Your task to perform on an android device: Add logitech g pro to the cart on ebay Image 0: 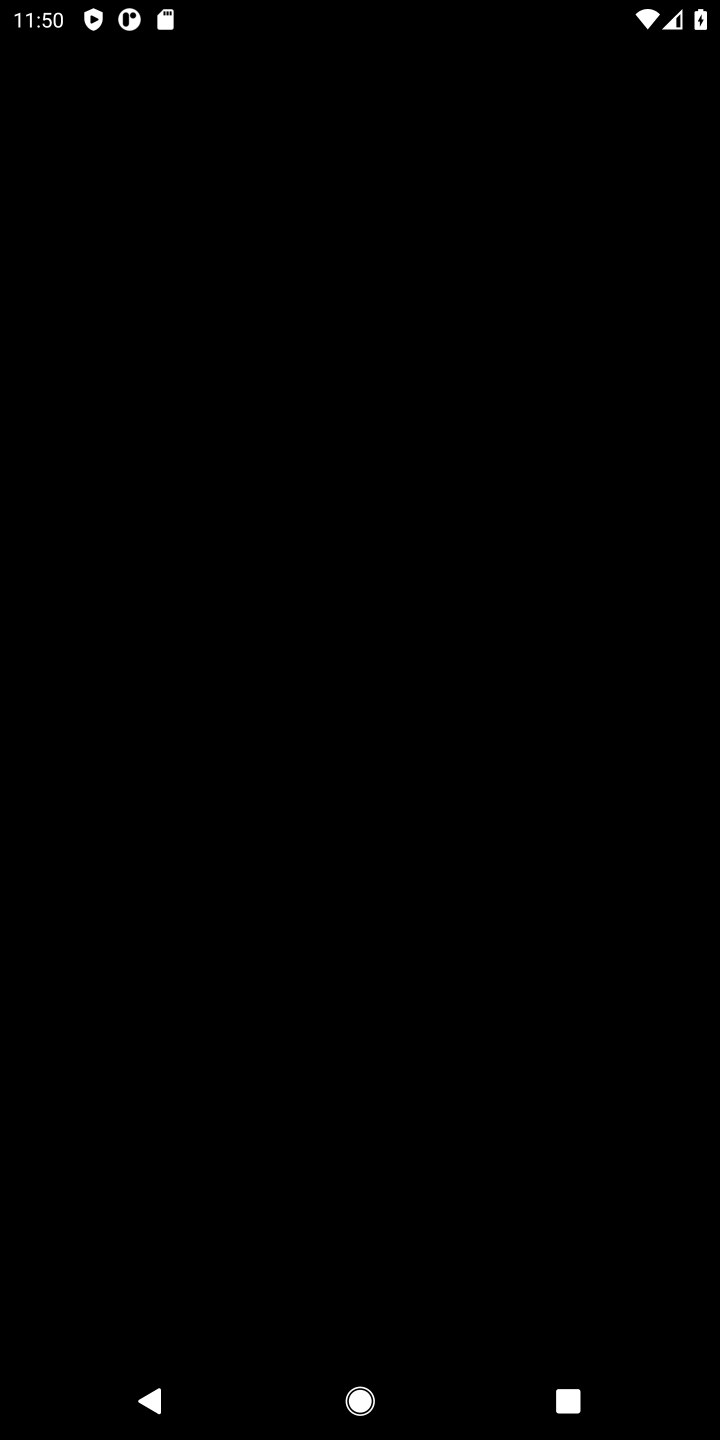
Step 0: click (481, 1151)
Your task to perform on an android device: Add logitech g pro to the cart on ebay Image 1: 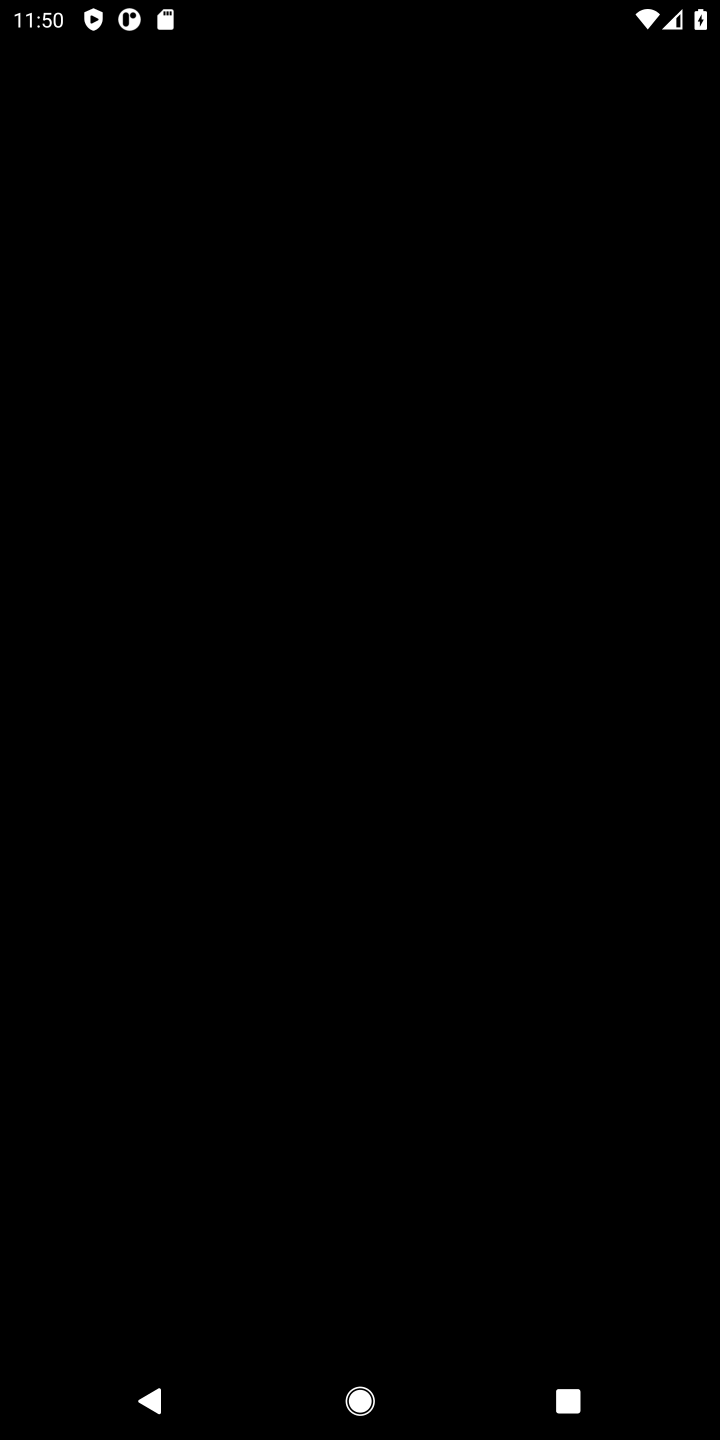
Step 1: press home button
Your task to perform on an android device: Add logitech g pro to the cart on ebay Image 2: 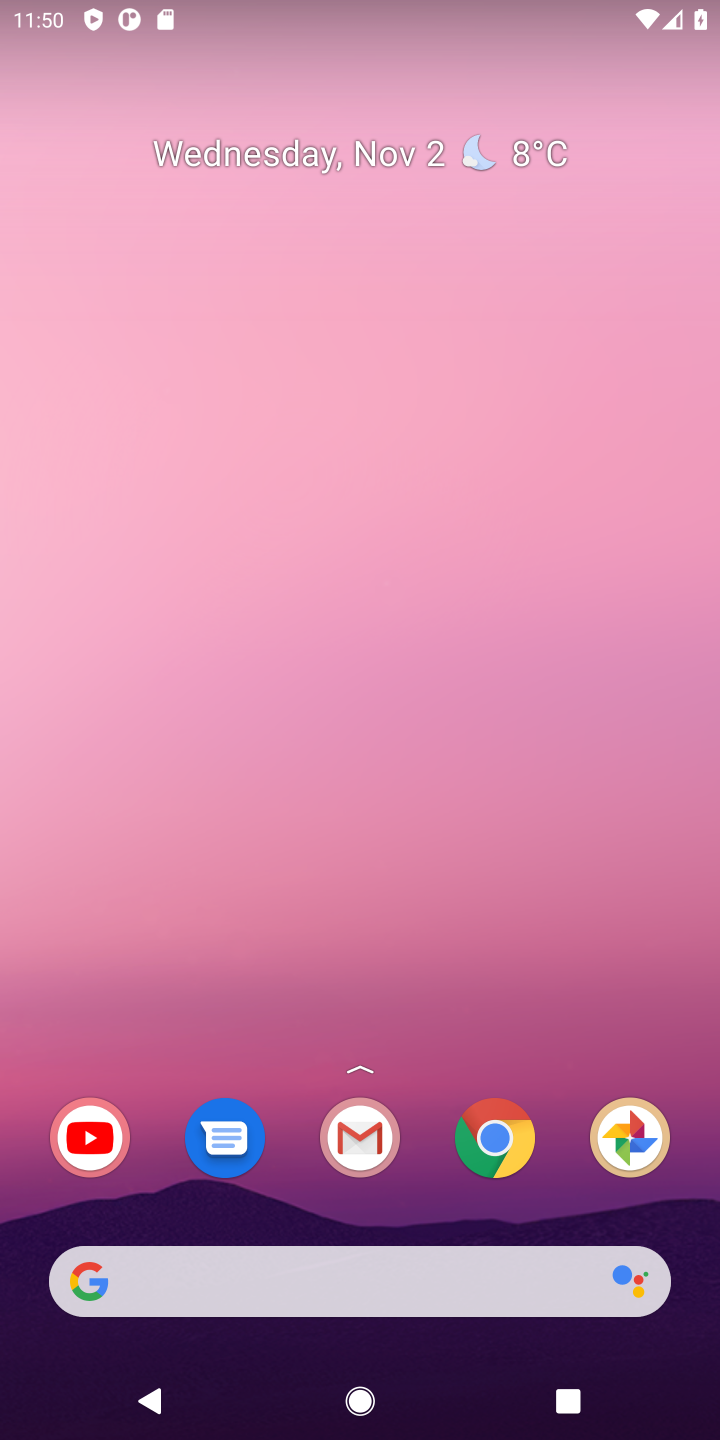
Step 2: click (516, 1148)
Your task to perform on an android device: Add logitech g pro to the cart on ebay Image 3: 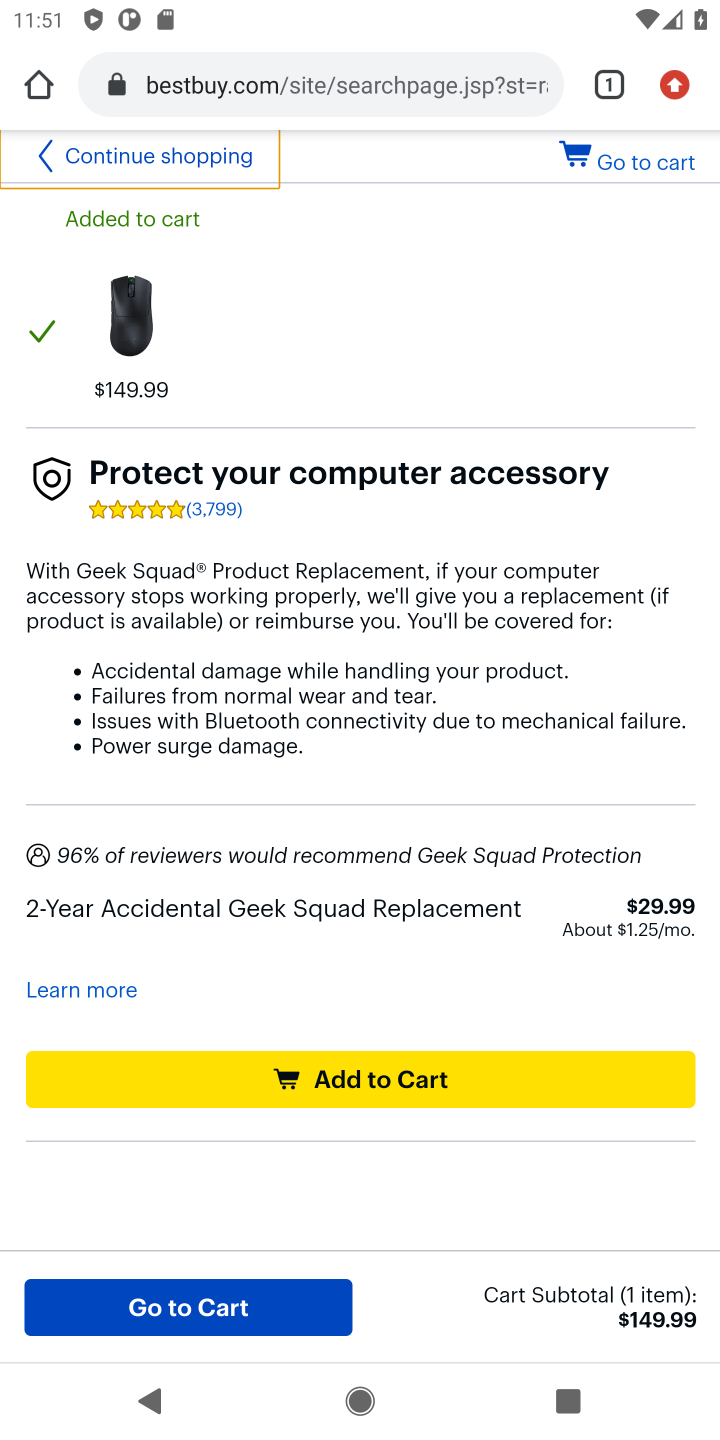
Step 3: click (319, 69)
Your task to perform on an android device: Add logitech g pro to the cart on ebay Image 4: 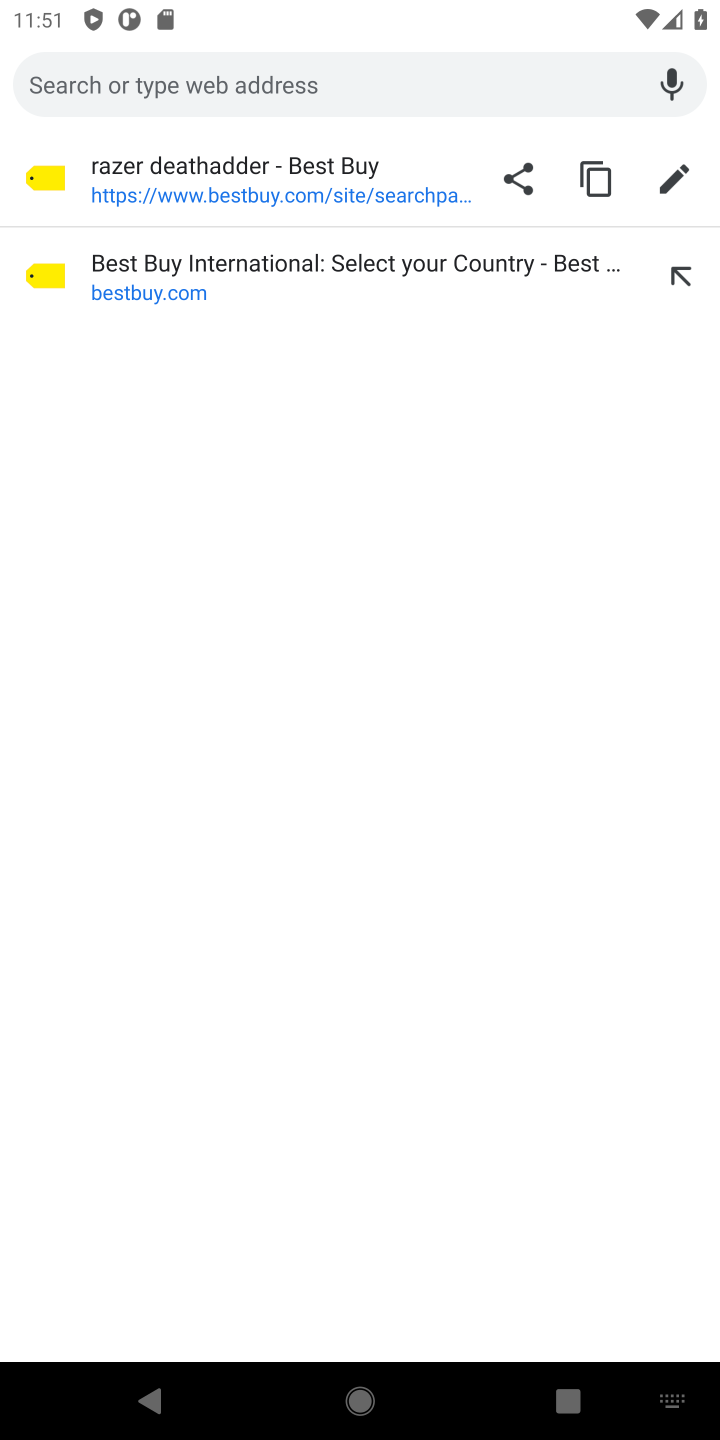
Step 4: type "ebay"
Your task to perform on an android device: Add logitech g pro to the cart on ebay Image 5: 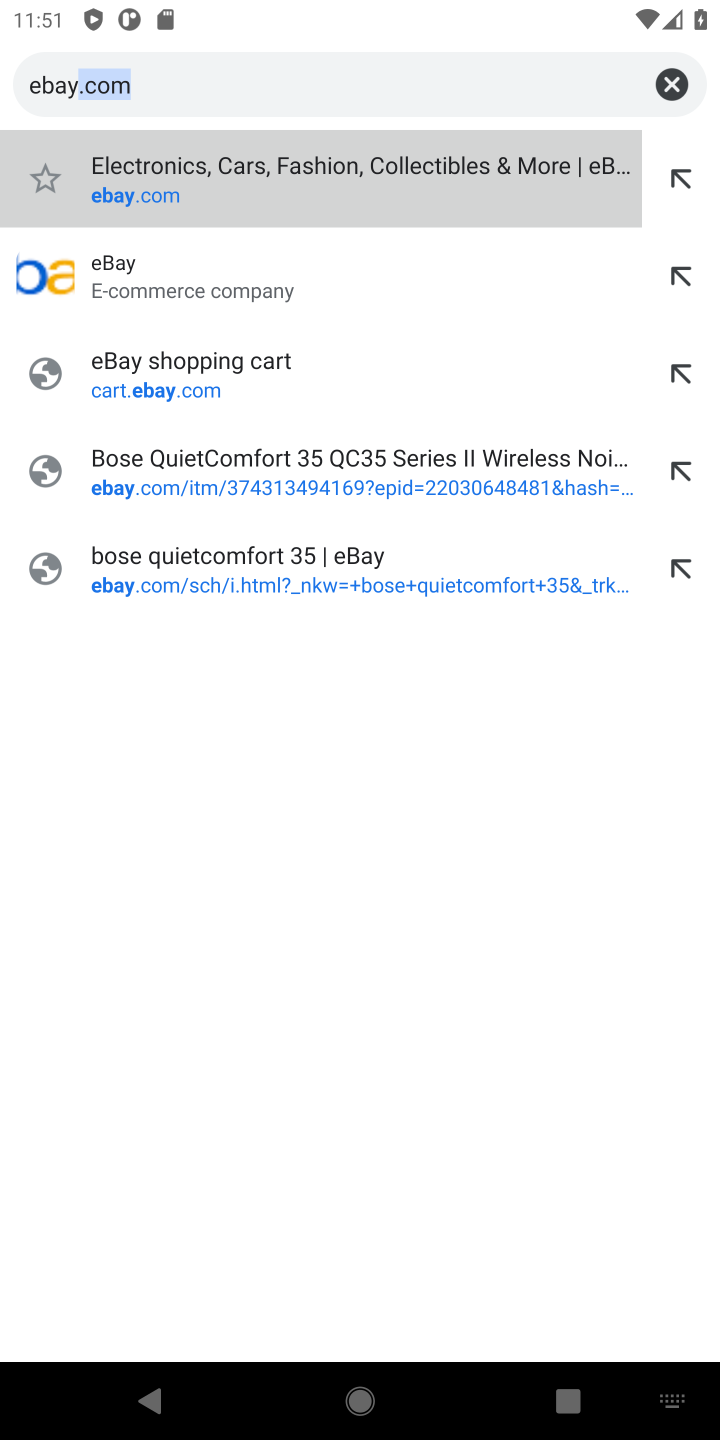
Step 5: click (174, 279)
Your task to perform on an android device: Add logitech g pro to the cart on ebay Image 6: 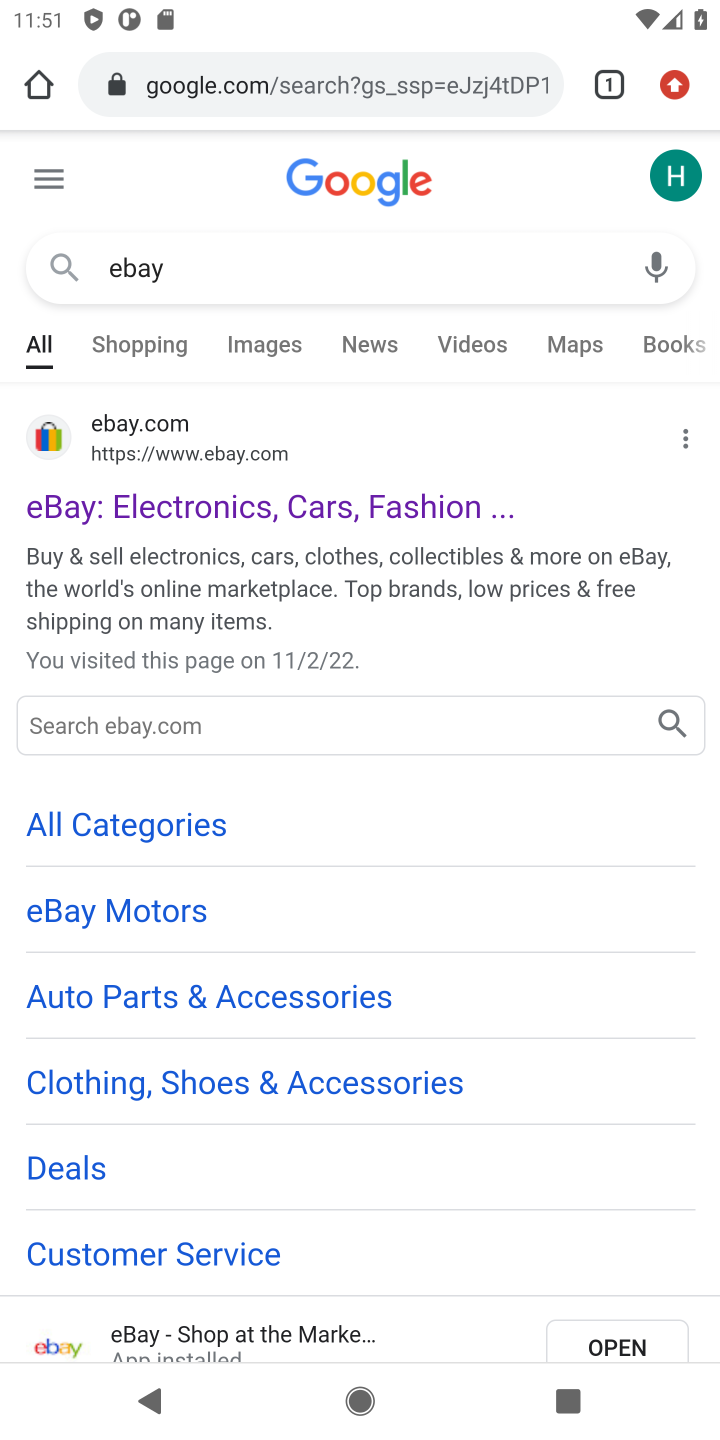
Step 6: click (45, 490)
Your task to perform on an android device: Add logitech g pro to the cart on ebay Image 7: 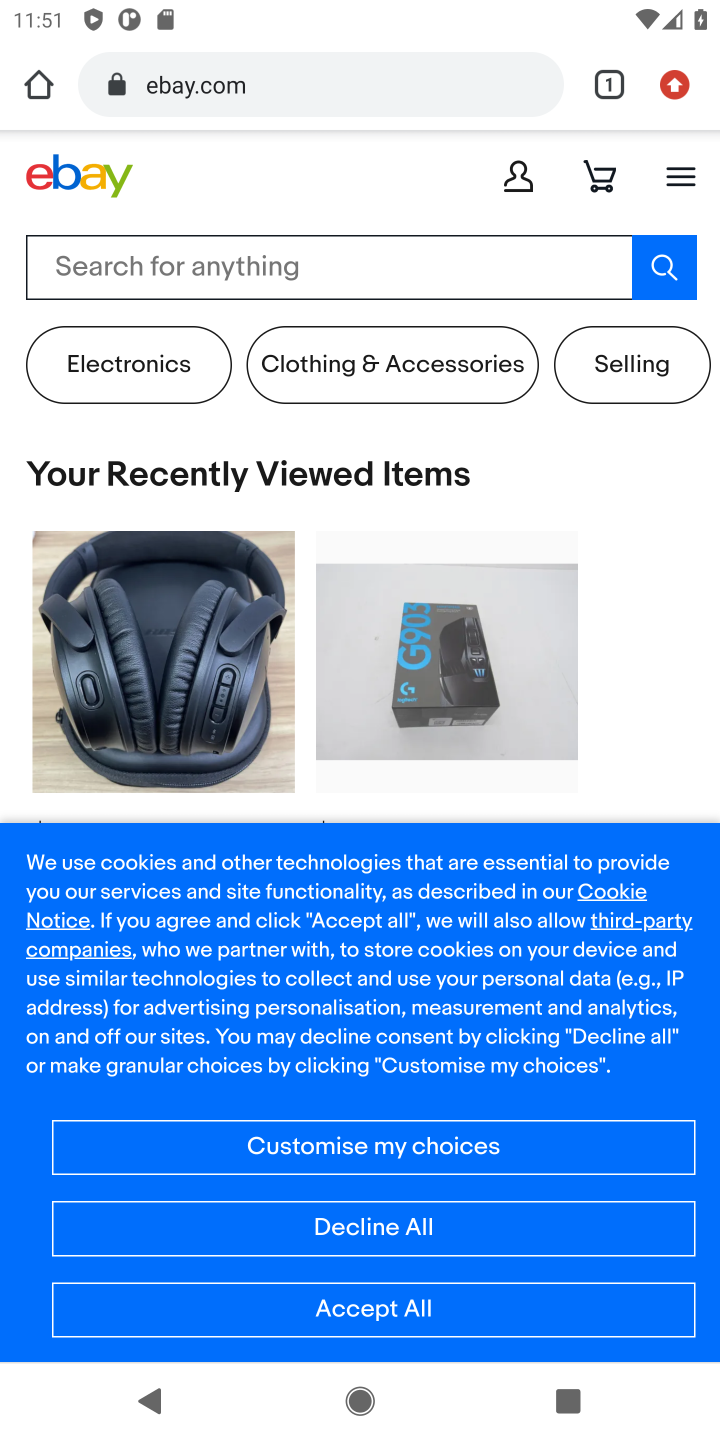
Step 7: click (75, 278)
Your task to perform on an android device: Add logitech g pro to the cart on ebay Image 8: 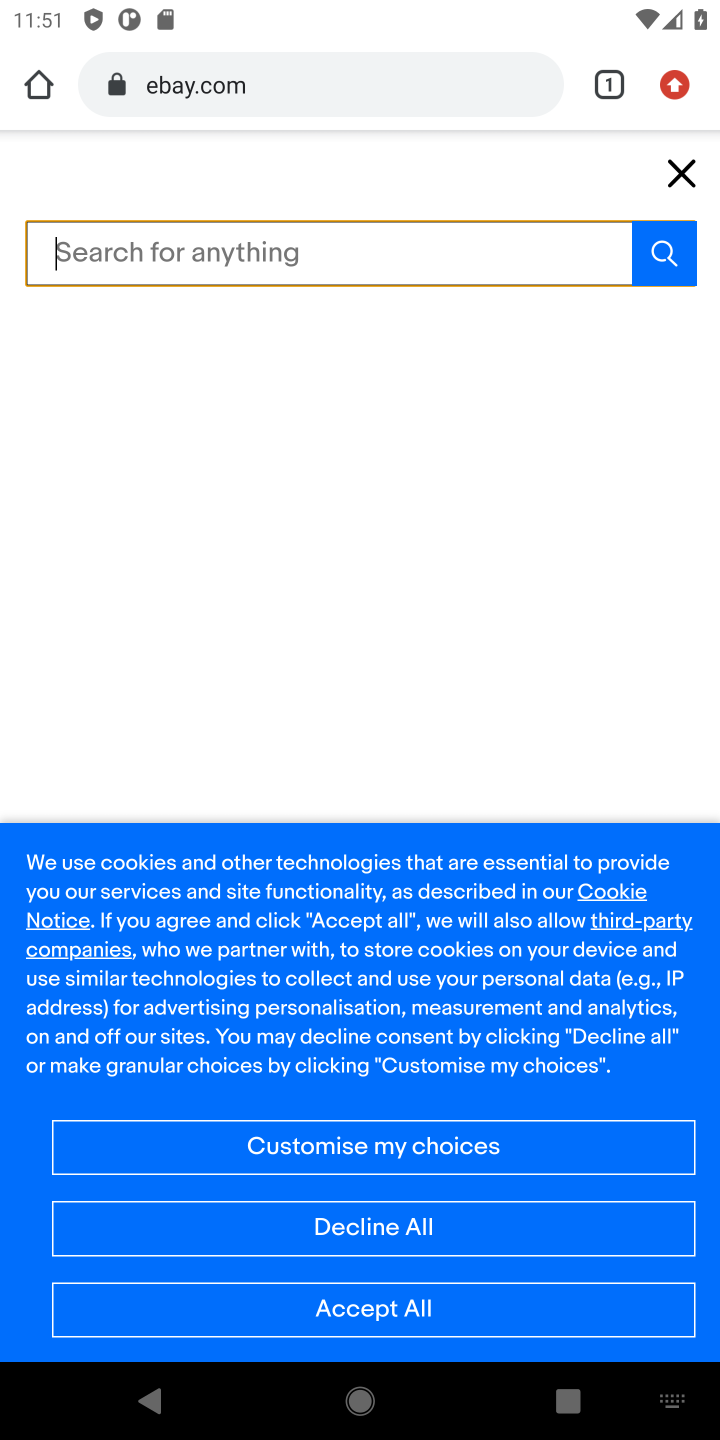
Step 8: type "logitech g pro"
Your task to perform on an android device: Add logitech g pro to the cart on ebay Image 9: 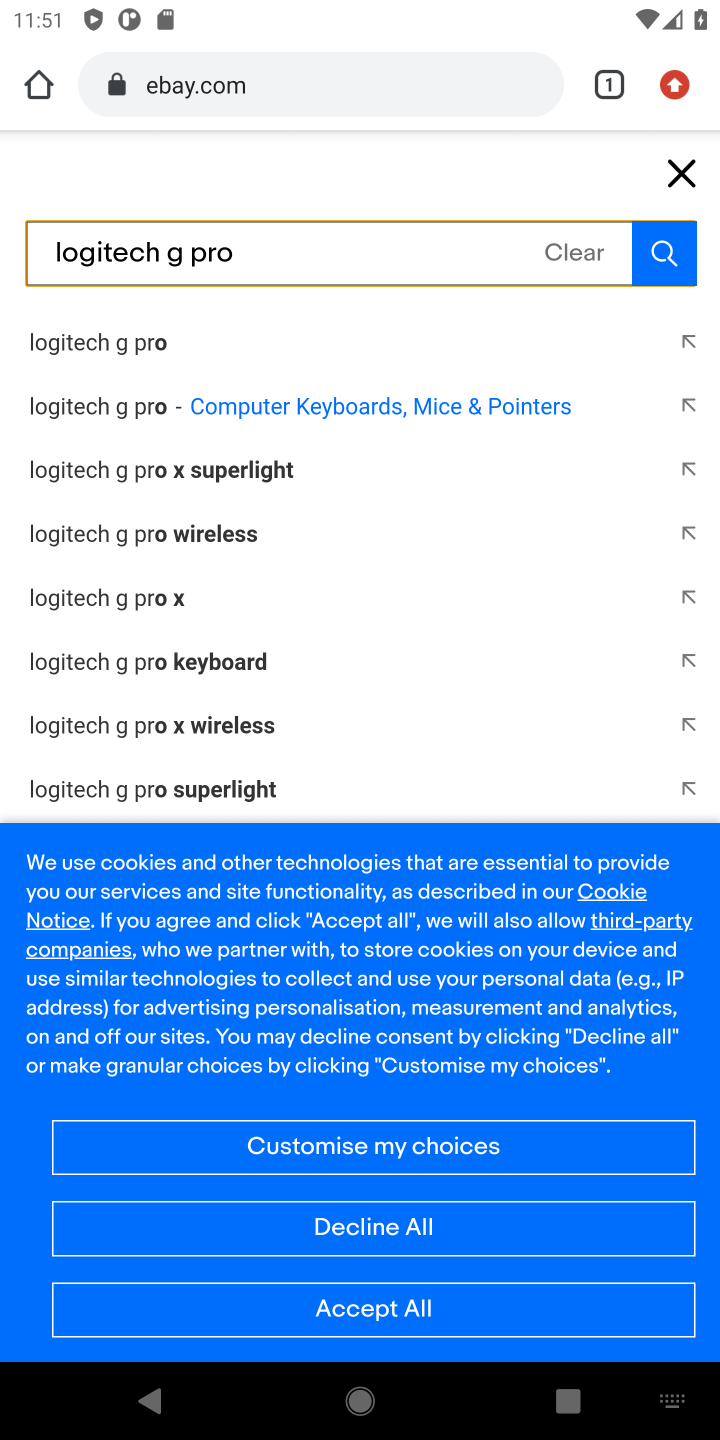
Step 9: click (651, 251)
Your task to perform on an android device: Add logitech g pro to the cart on ebay Image 10: 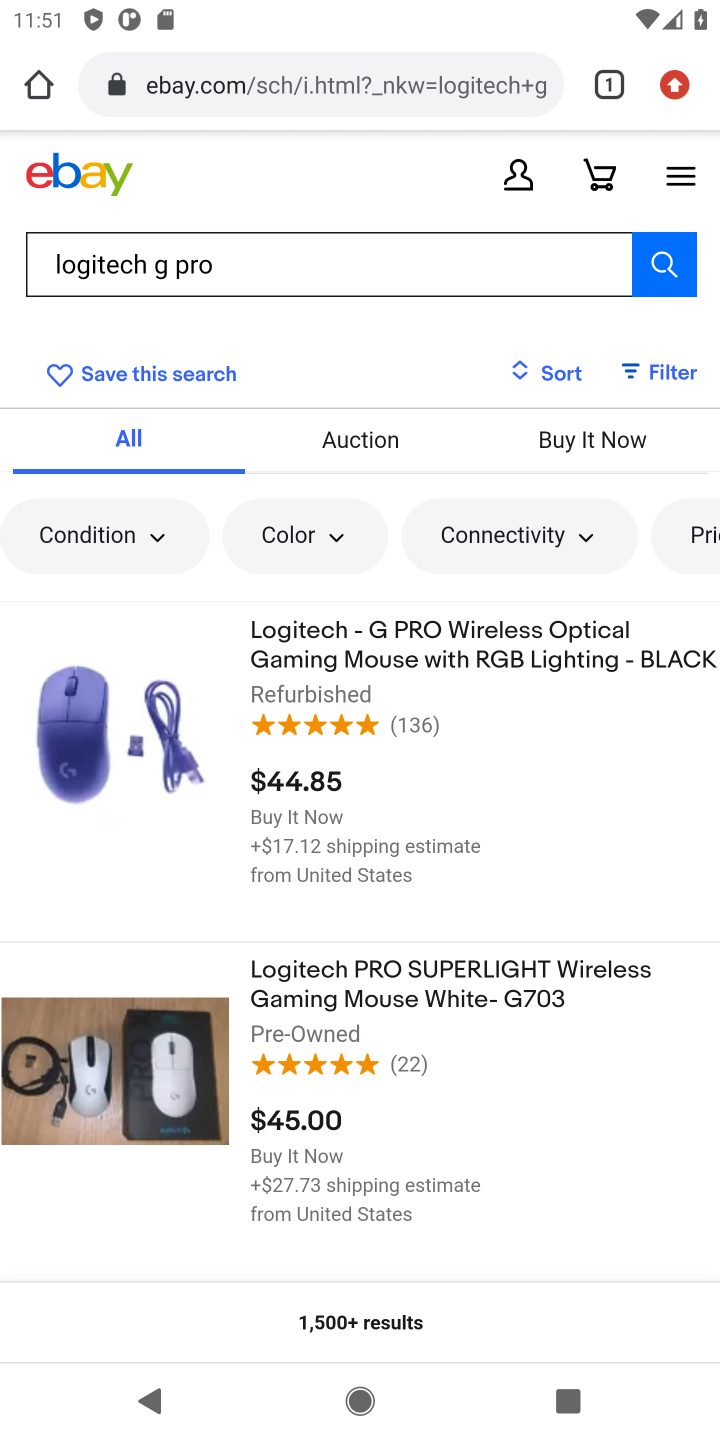
Step 10: click (324, 655)
Your task to perform on an android device: Add logitech g pro to the cart on ebay Image 11: 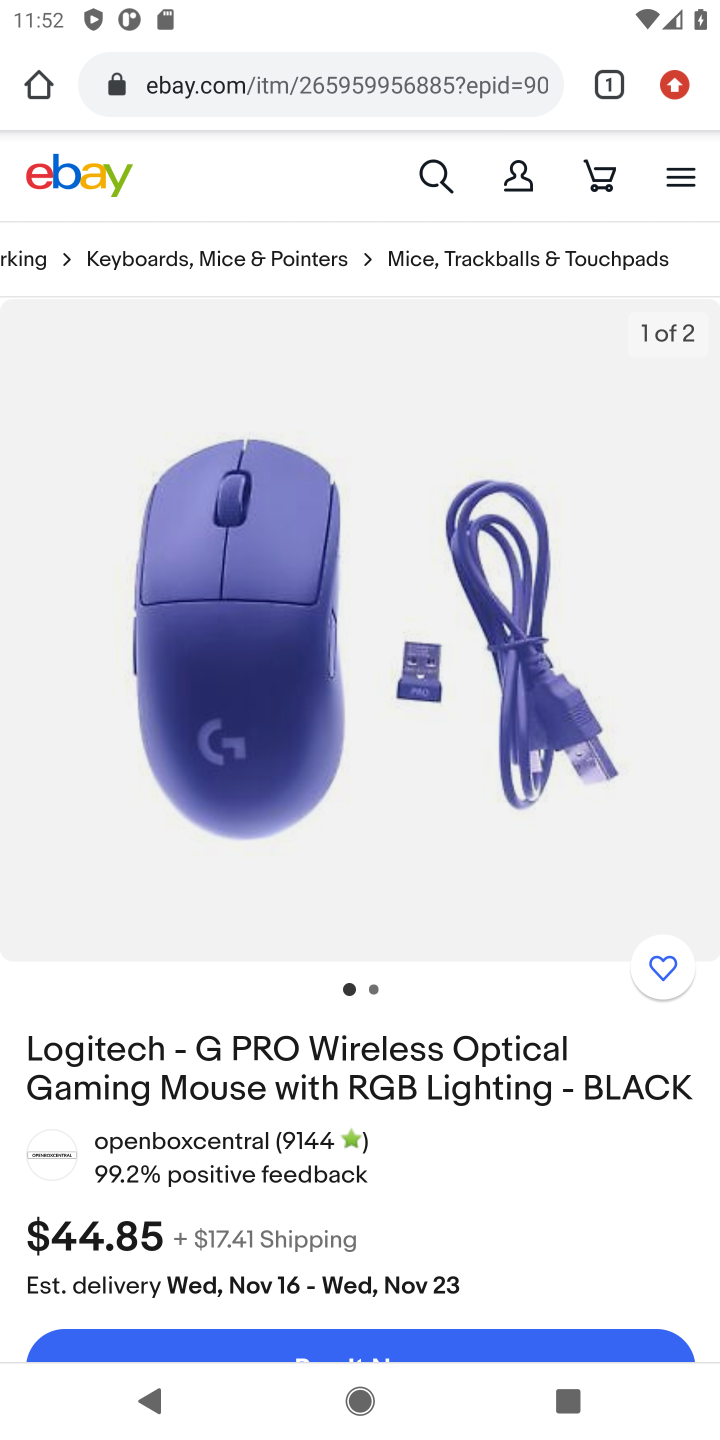
Step 11: drag from (505, 1225) to (539, 543)
Your task to perform on an android device: Add logitech g pro to the cart on ebay Image 12: 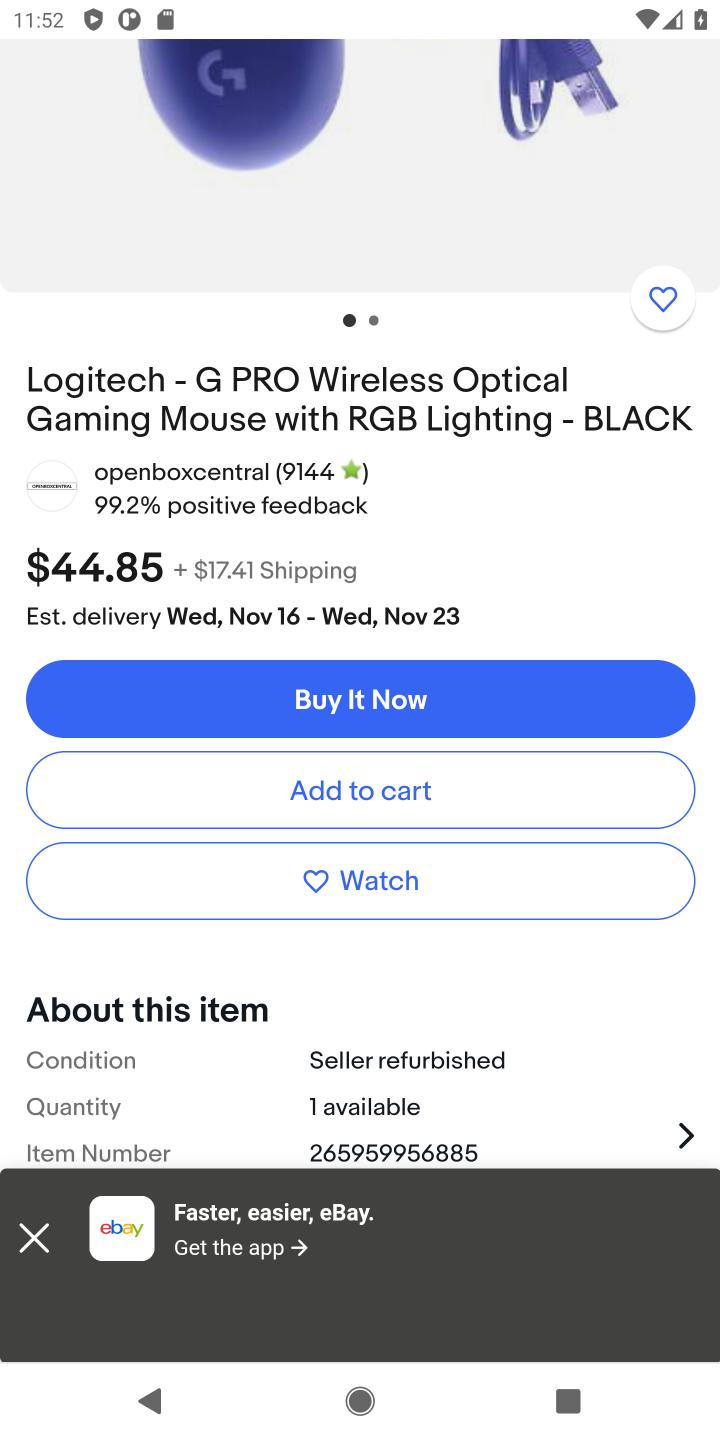
Step 12: click (309, 782)
Your task to perform on an android device: Add logitech g pro to the cart on ebay Image 13: 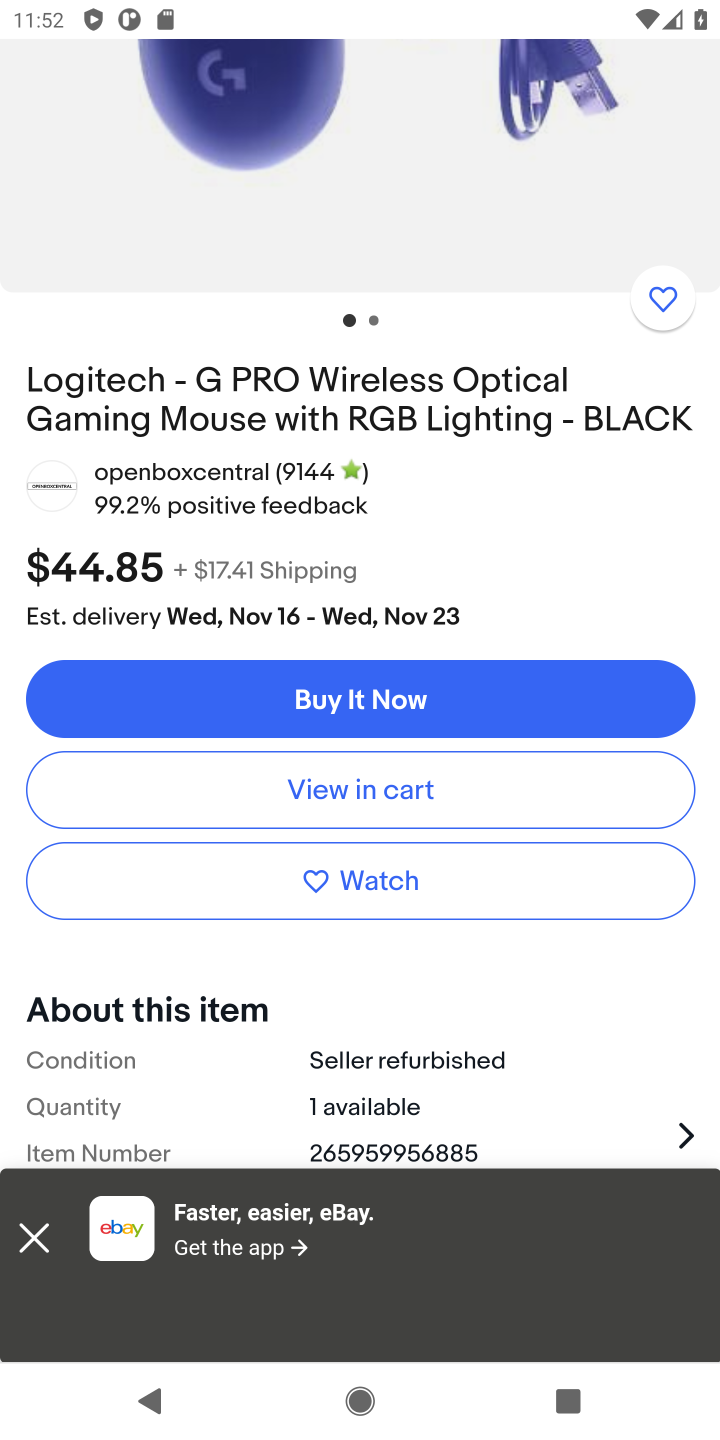
Step 13: task complete